Your task to perform on an android device: delete a single message in the gmail app Image 0: 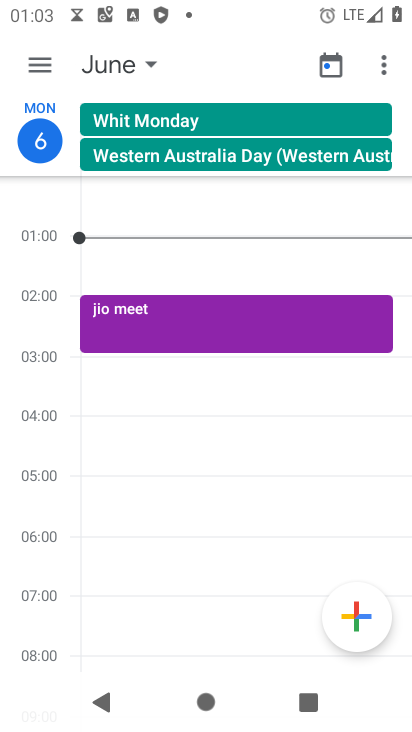
Step 0: press home button
Your task to perform on an android device: delete a single message in the gmail app Image 1: 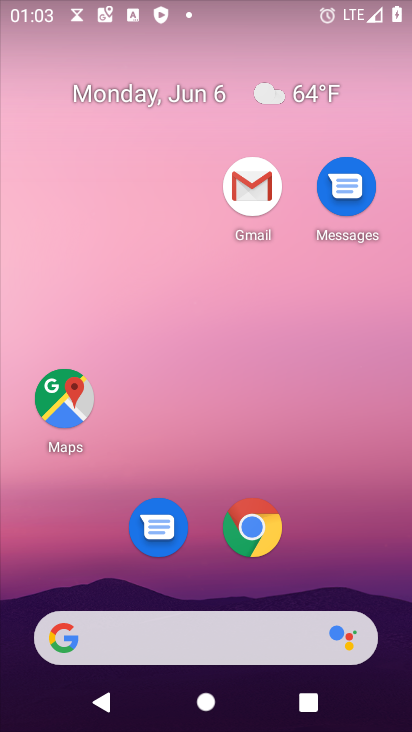
Step 1: click (263, 191)
Your task to perform on an android device: delete a single message in the gmail app Image 2: 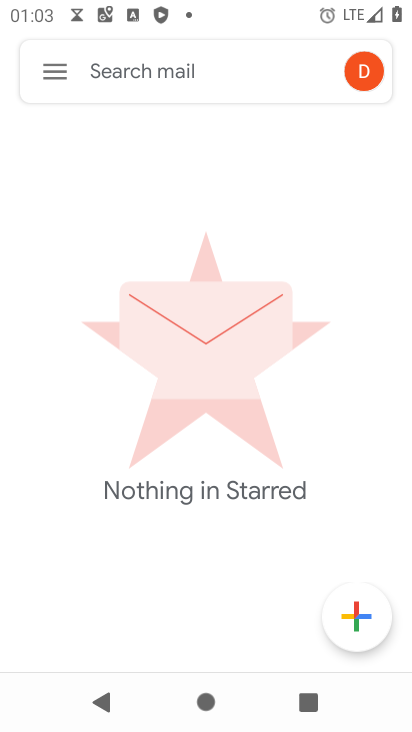
Step 2: click (47, 55)
Your task to perform on an android device: delete a single message in the gmail app Image 3: 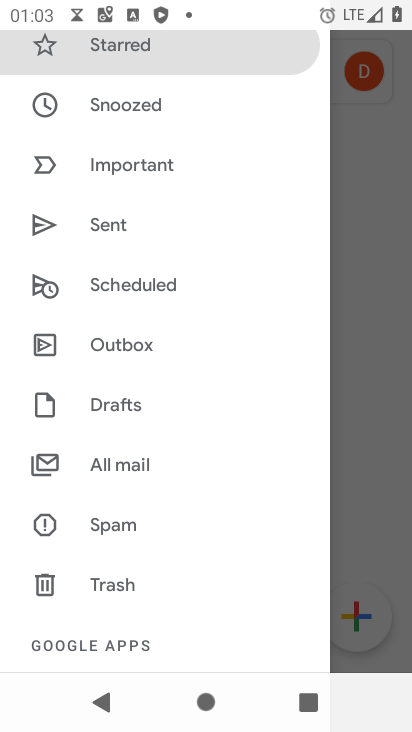
Step 3: drag from (183, 556) to (217, 78)
Your task to perform on an android device: delete a single message in the gmail app Image 4: 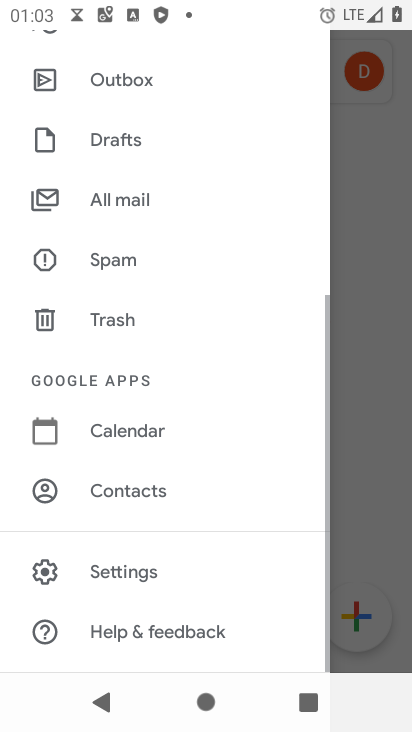
Step 4: click (124, 560)
Your task to perform on an android device: delete a single message in the gmail app Image 5: 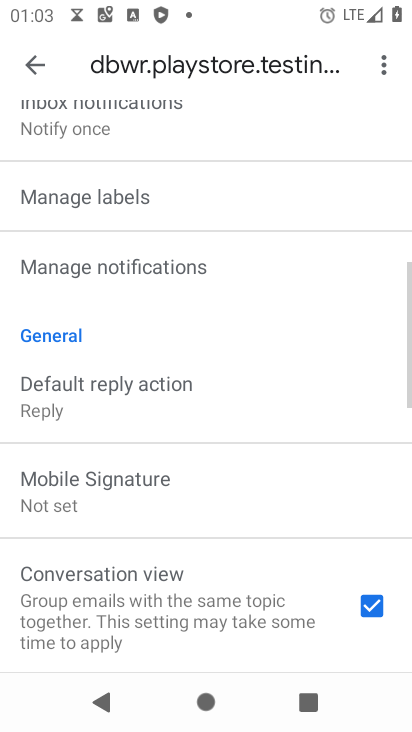
Step 5: click (34, 68)
Your task to perform on an android device: delete a single message in the gmail app Image 6: 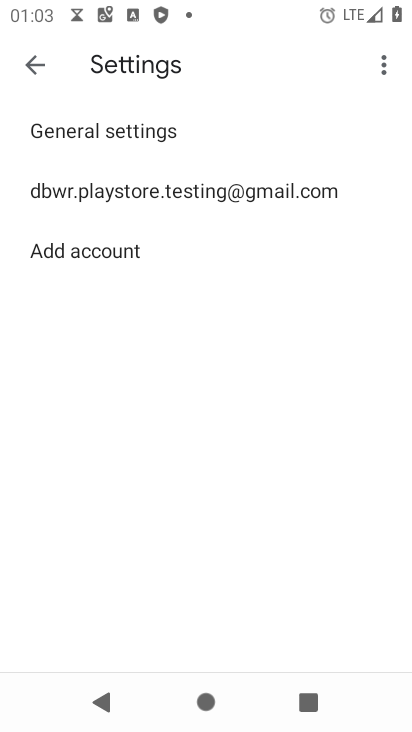
Step 6: click (48, 55)
Your task to perform on an android device: delete a single message in the gmail app Image 7: 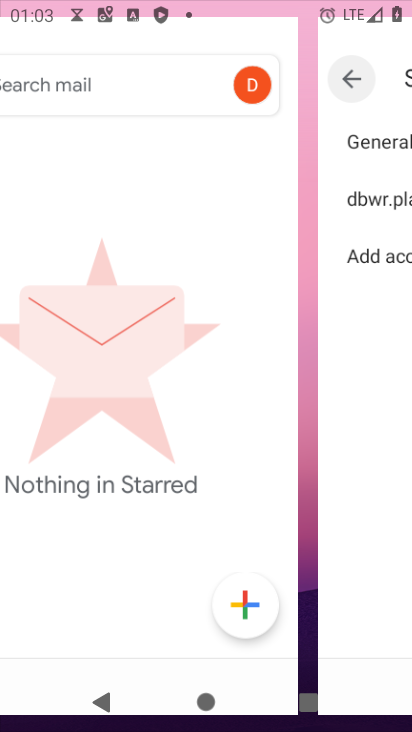
Step 7: click (48, 55)
Your task to perform on an android device: delete a single message in the gmail app Image 8: 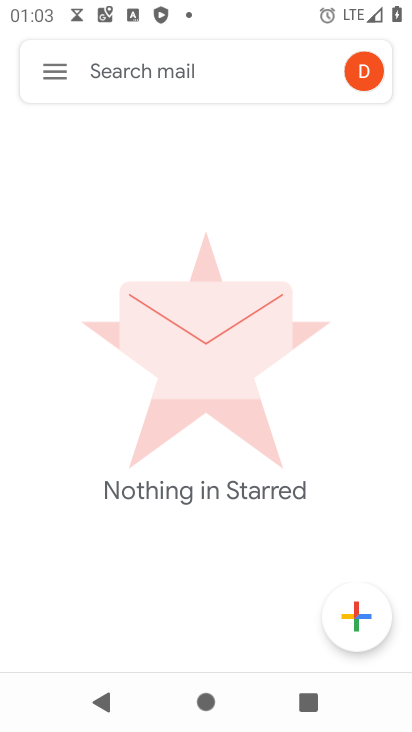
Step 8: click (48, 55)
Your task to perform on an android device: delete a single message in the gmail app Image 9: 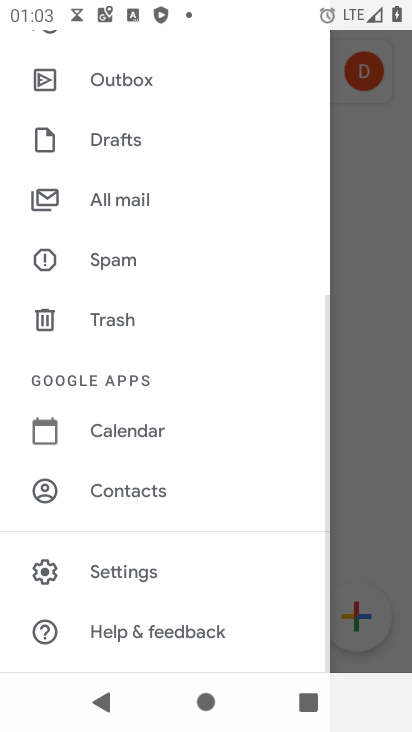
Step 9: click (76, 205)
Your task to perform on an android device: delete a single message in the gmail app Image 10: 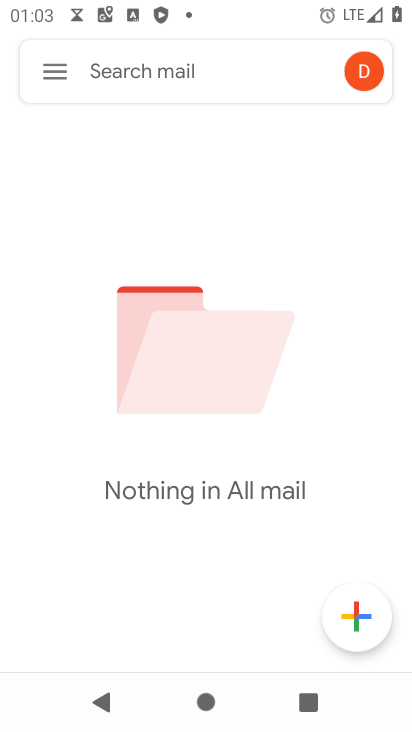
Step 10: task complete